Your task to perform on an android device: Go to display settings Image 0: 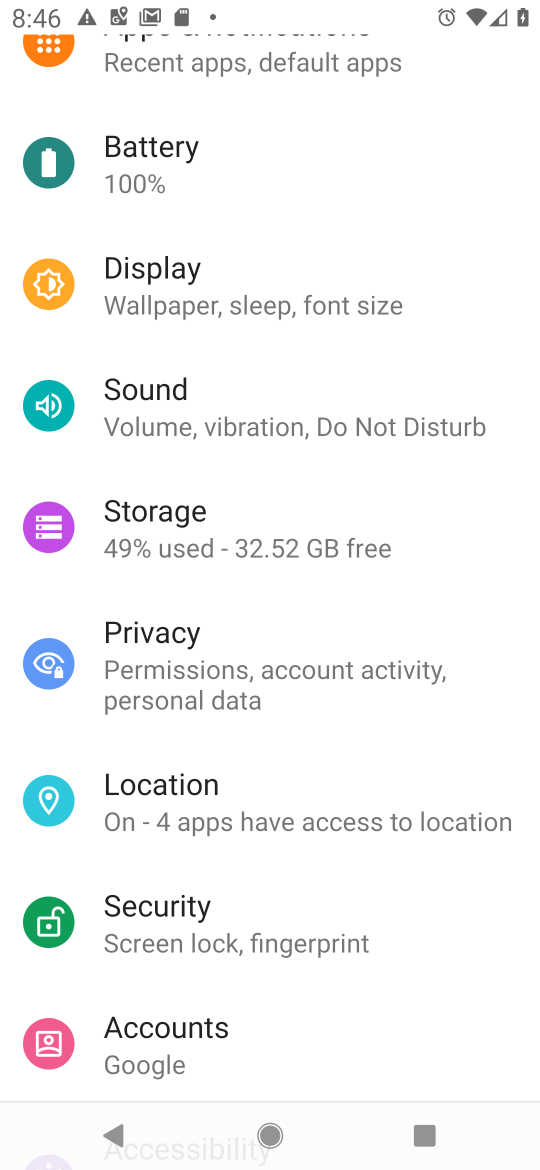
Step 0: press home button
Your task to perform on an android device: Go to display settings Image 1: 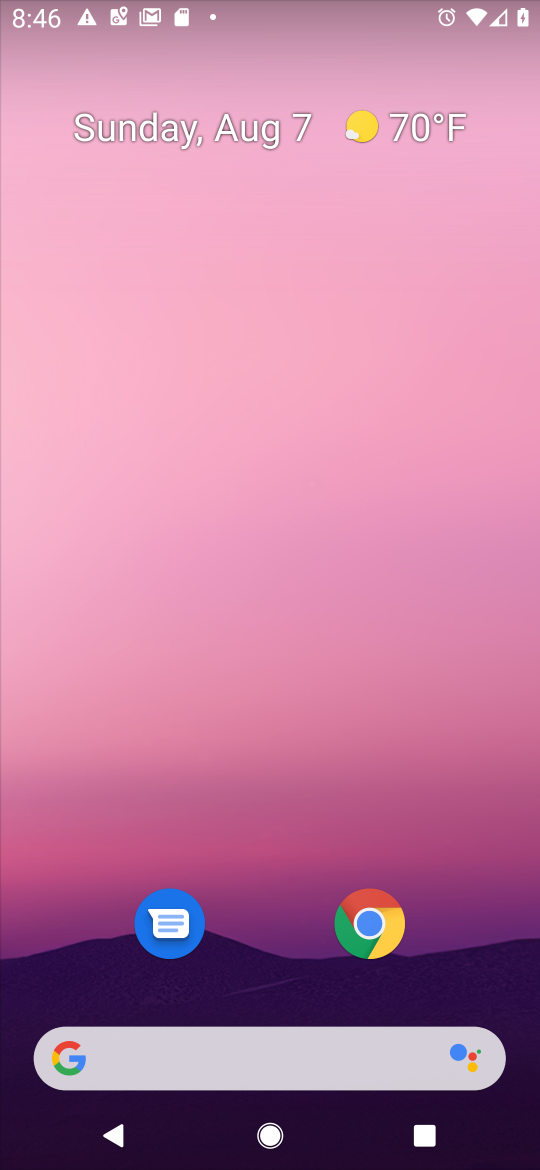
Step 1: drag from (460, 719) to (252, 7)
Your task to perform on an android device: Go to display settings Image 2: 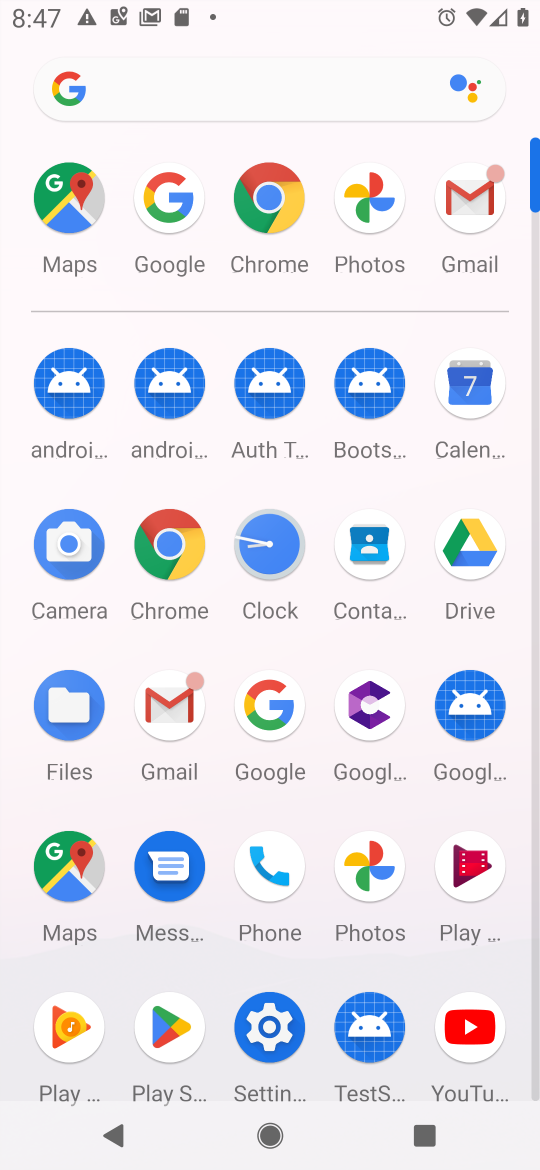
Step 2: click (257, 1031)
Your task to perform on an android device: Go to display settings Image 3: 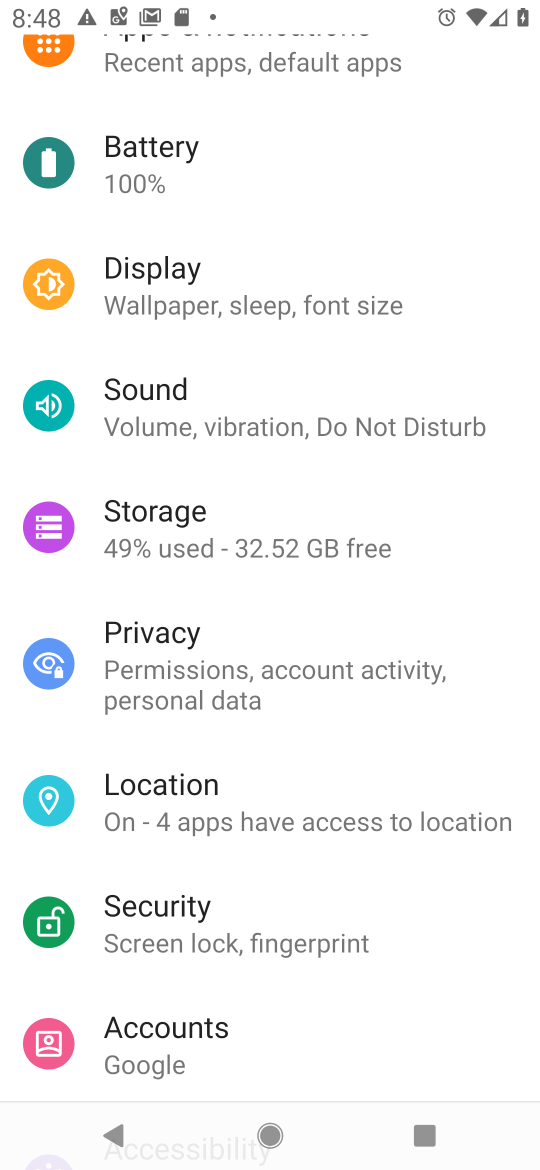
Step 3: click (140, 307)
Your task to perform on an android device: Go to display settings Image 4: 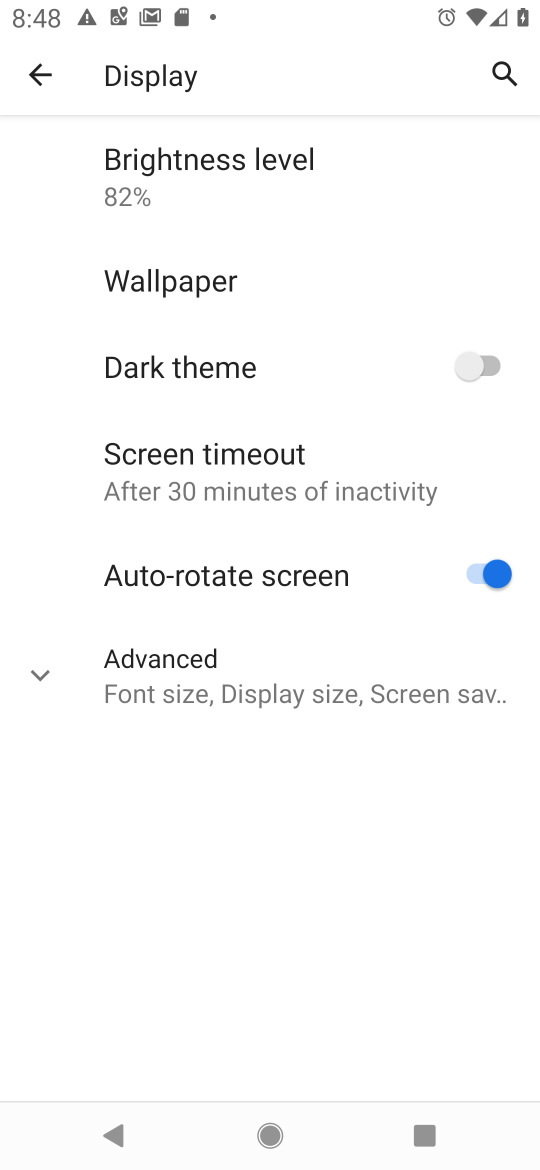
Step 4: task complete